Your task to perform on an android device: star an email in the gmail app Image 0: 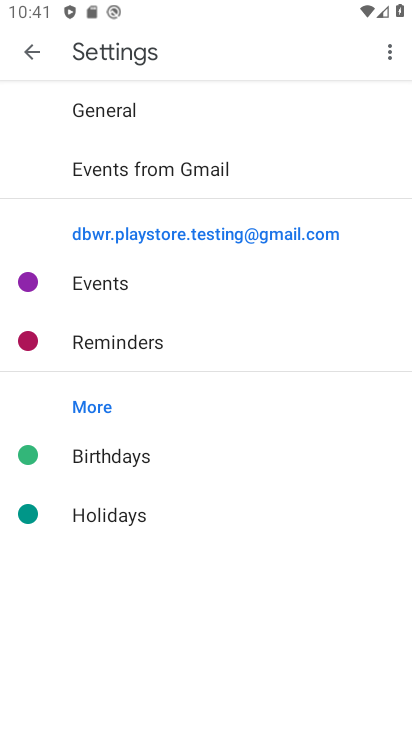
Step 0: press home button
Your task to perform on an android device: star an email in the gmail app Image 1: 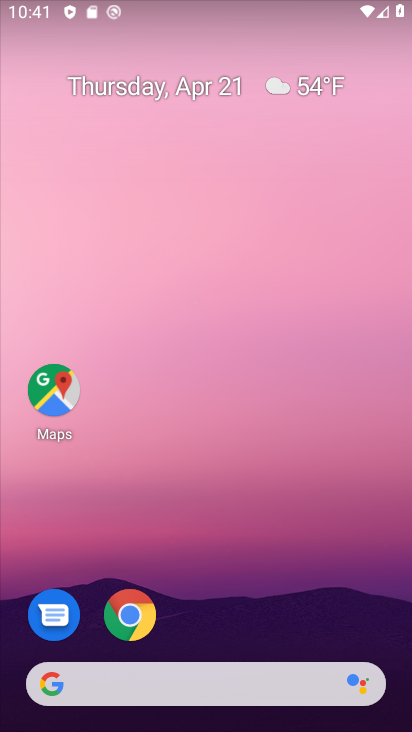
Step 1: drag from (240, 642) to (269, 175)
Your task to perform on an android device: star an email in the gmail app Image 2: 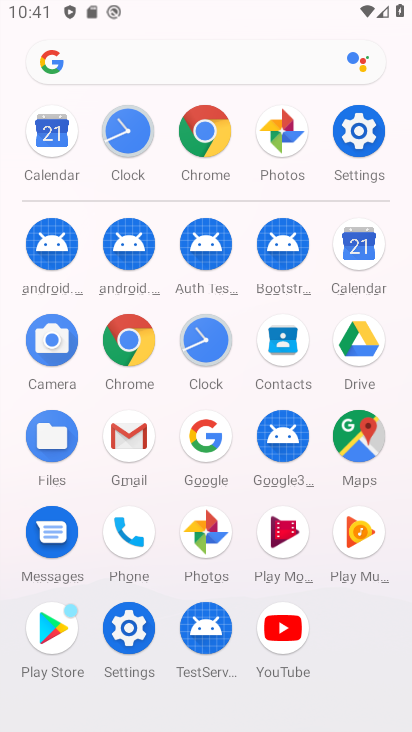
Step 2: click (118, 443)
Your task to perform on an android device: star an email in the gmail app Image 3: 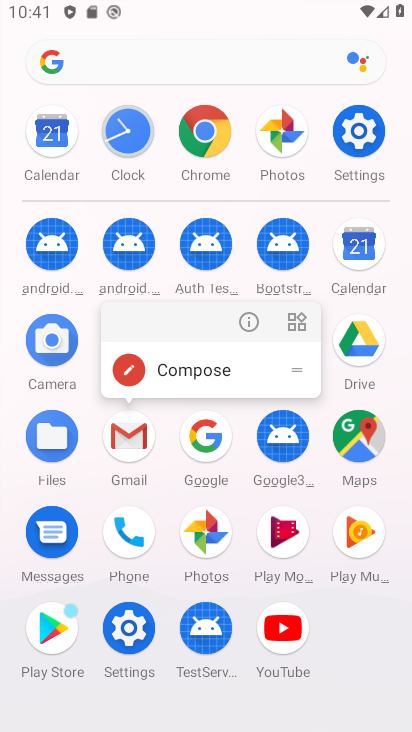
Step 3: click (118, 442)
Your task to perform on an android device: star an email in the gmail app Image 4: 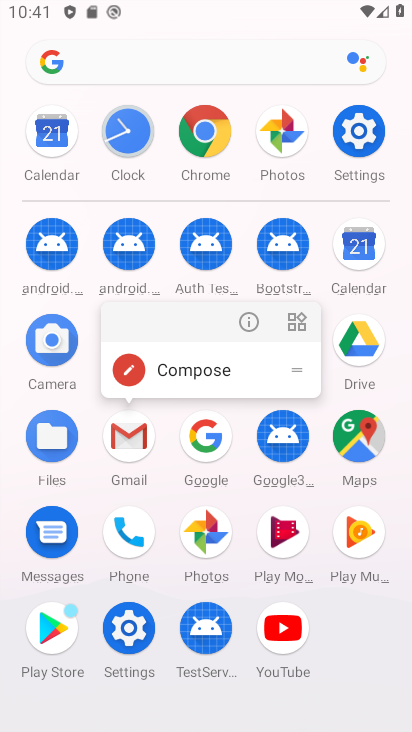
Step 4: click (124, 439)
Your task to perform on an android device: star an email in the gmail app Image 5: 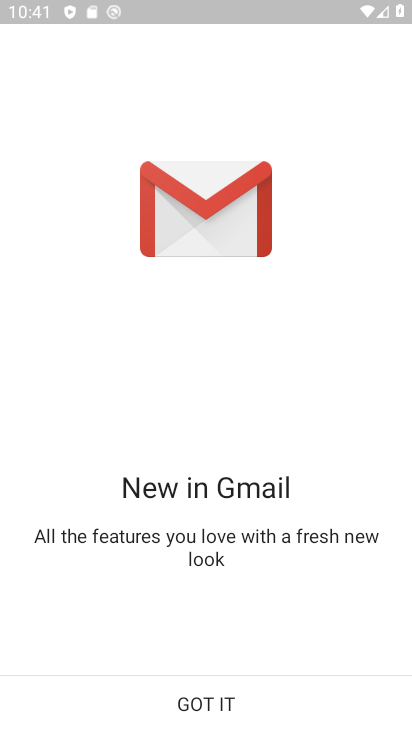
Step 5: click (196, 704)
Your task to perform on an android device: star an email in the gmail app Image 6: 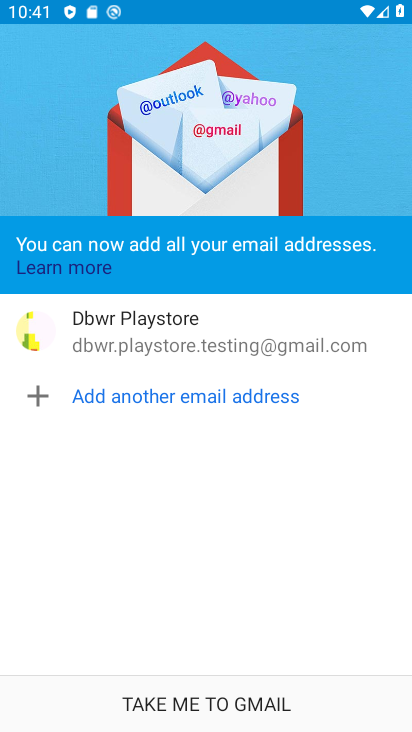
Step 6: click (195, 704)
Your task to perform on an android device: star an email in the gmail app Image 7: 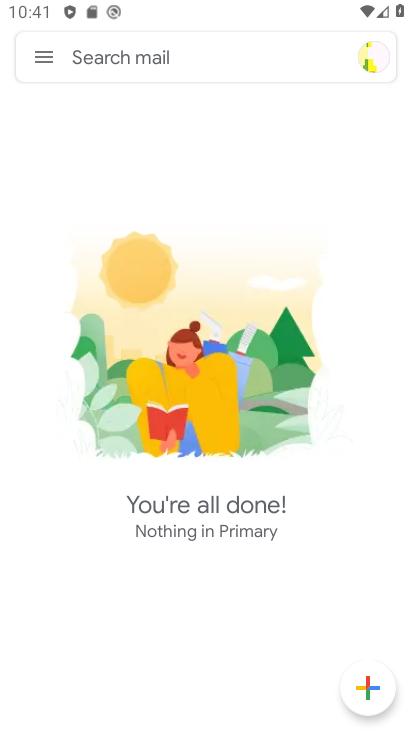
Step 7: click (43, 53)
Your task to perform on an android device: star an email in the gmail app Image 8: 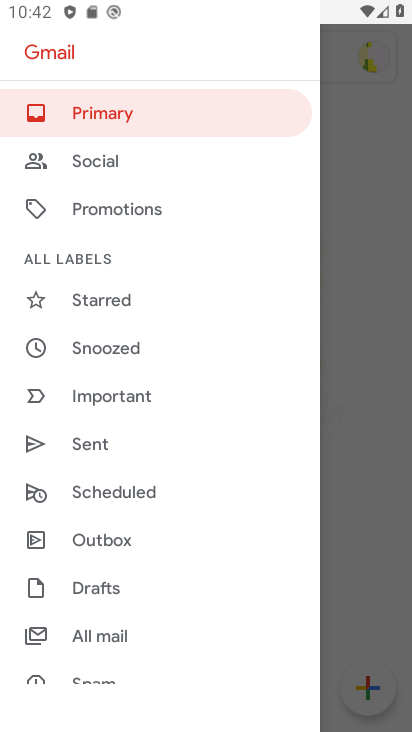
Step 8: click (45, 56)
Your task to perform on an android device: star an email in the gmail app Image 9: 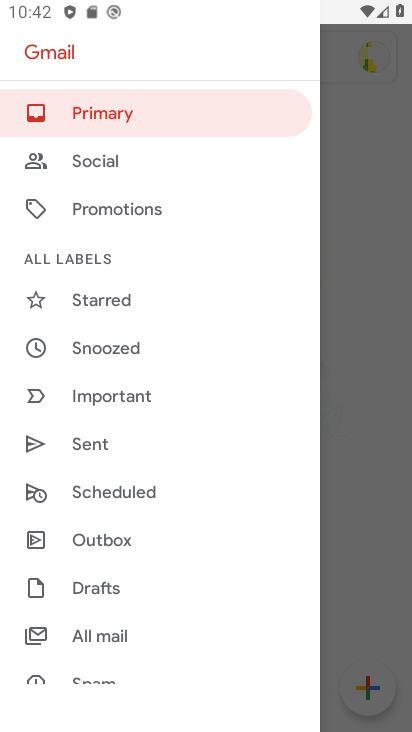
Step 9: click (107, 635)
Your task to perform on an android device: star an email in the gmail app Image 10: 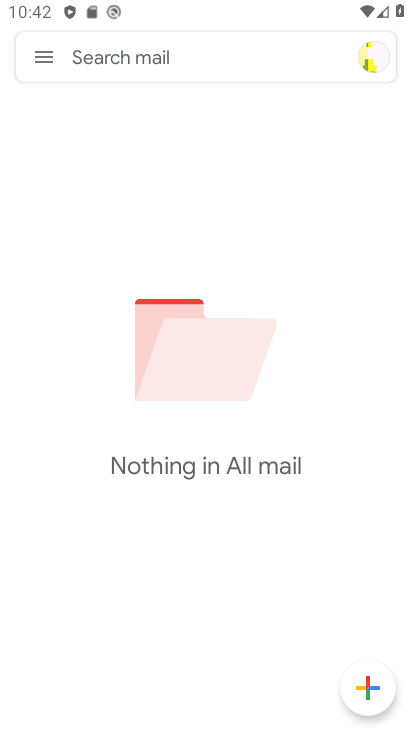
Step 10: click (44, 61)
Your task to perform on an android device: star an email in the gmail app Image 11: 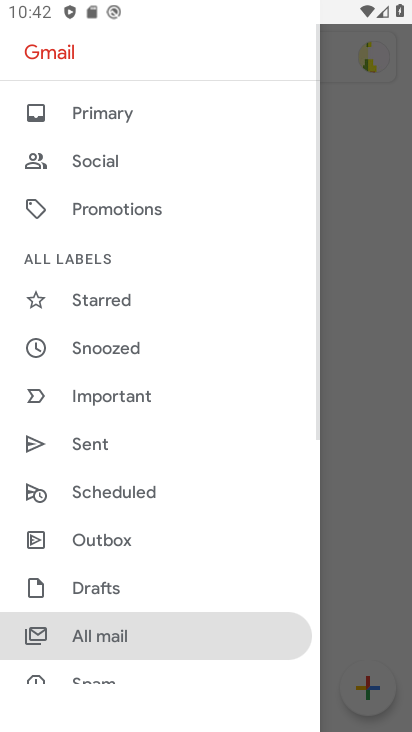
Step 11: drag from (117, 126) to (182, 390)
Your task to perform on an android device: star an email in the gmail app Image 12: 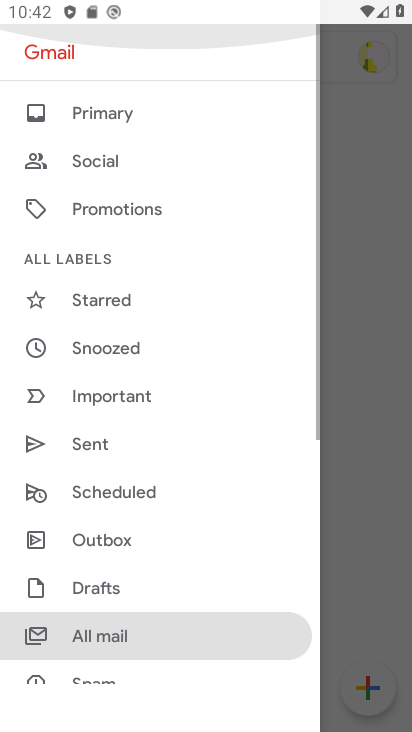
Step 12: click (347, 286)
Your task to perform on an android device: star an email in the gmail app Image 13: 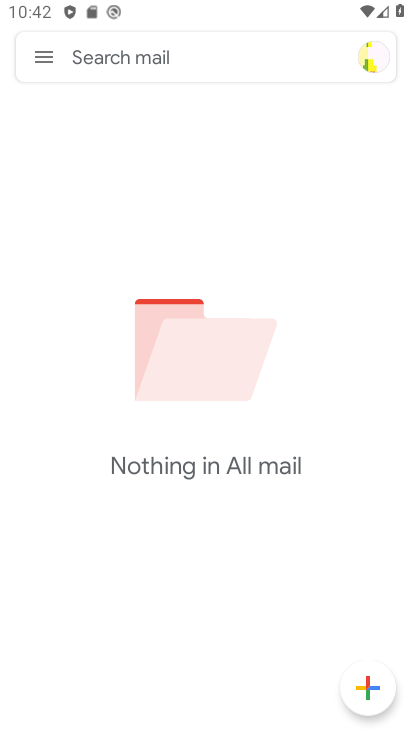
Step 13: task complete